Your task to perform on an android device: open app "Upside-Cash back on gas & food" (install if not already installed), go to login, and select forgot password Image 0: 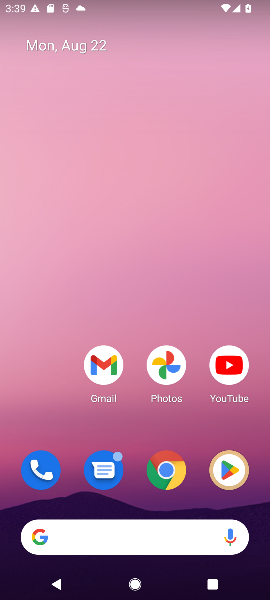
Step 0: drag from (130, 484) to (138, 147)
Your task to perform on an android device: open app "Upside-Cash back on gas & food" (install if not already installed), go to login, and select forgot password Image 1: 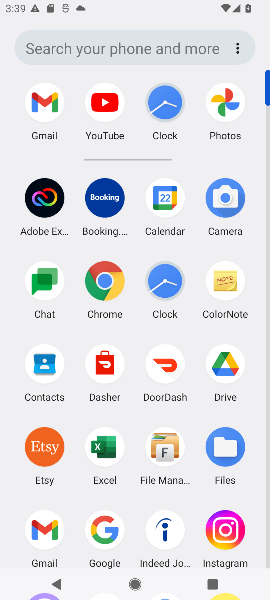
Step 1: drag from (106, 526) to (218, 160)
Your task to perform on an android device: open app "Upside-Cash back on gas & food" (install if not already installed), go to login, and select forgot password Image 2: 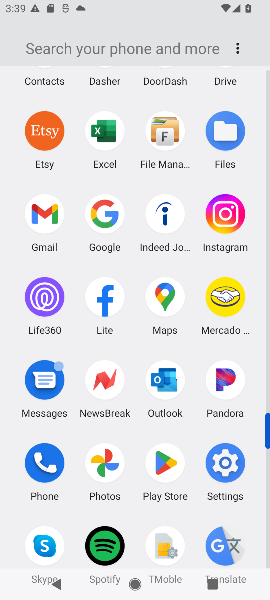
Step 2: click (163, 466)
Your task to perform on an android device: open app "Upside-Cash back on gas & food" (install if not already installed), go to login, and select forgot password Image 3: 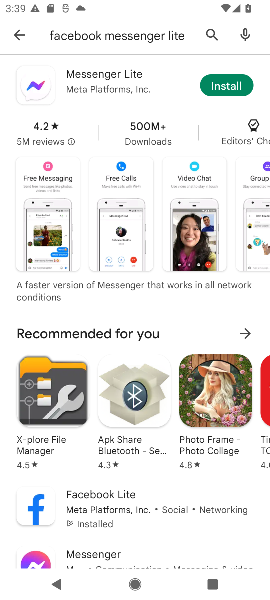
Step 3: click (21, 34)
Your task to perform on an android device: open app "Upside-Cash back on gas & food" (install if not already installed), go to login, and select forgot password Image 4: 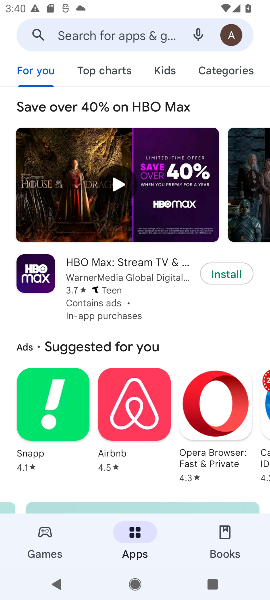
Step 4: click (125, 30)
Your task to perform on an android device: open app "Upside-Cash back on gas & food" (install if not already installed), go to login, and select forgot password Image 5: 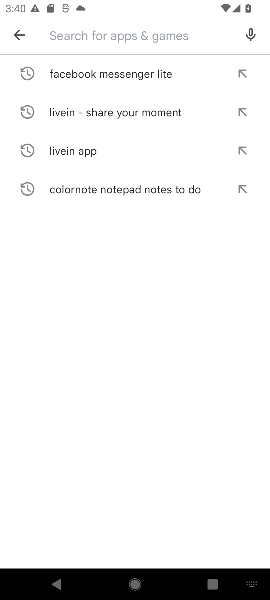
Step 5: type "Cash back on gas & food "
Your task to perform on an android device: open app "Upside-Cash back on gas & food" (install if not already installed), go to login, and select forgot password Image 6: 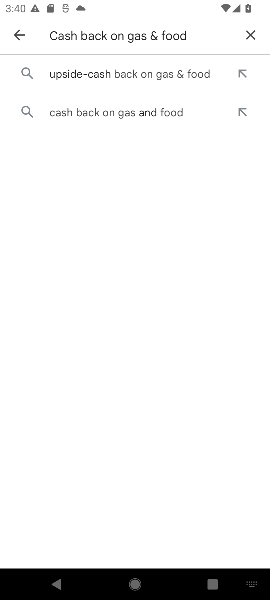
Step 6: click (148, 68)
Your task to perform on an android device: open app "Upside-Cash back on gas & food" (install if not already installed), go to login, and select forgot password Image 7: 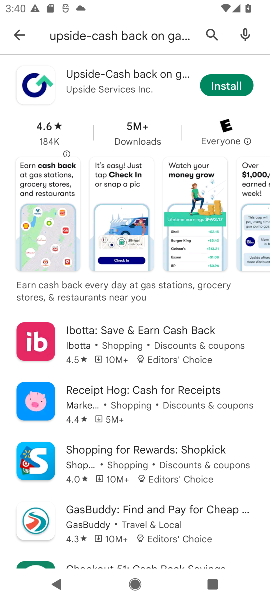
Step 7: click (232, 81)
Your task to perform on an android device: open app "Upside-Cash back on gas & food" (install if not already installed), go to login, and select forgot password Image 8: 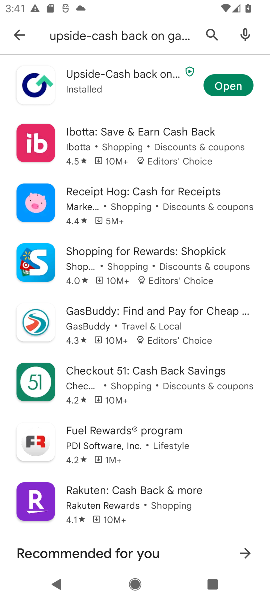
Step 8: click (223, 81)
Your task to perform on an android device: open app "Upside-Cash back on gas & food" (install if not already installed), go to login, and select forgot password Image 9: 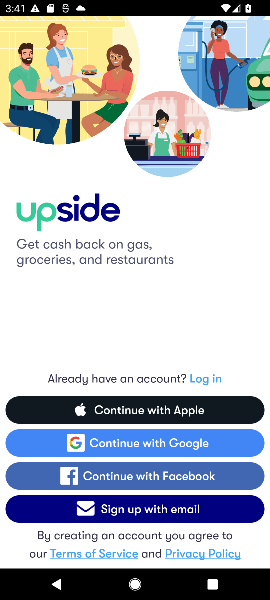
Step 9: task complete